Your task to perform on an android device: all mails in gmail Image 0: 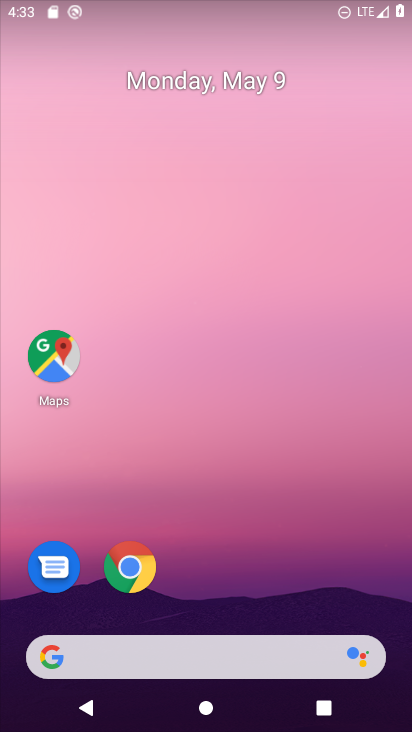
Step 0: drag from (219, 618) to (216, 161)
Your task to perform on an android device: all mails in gmail Image 1: 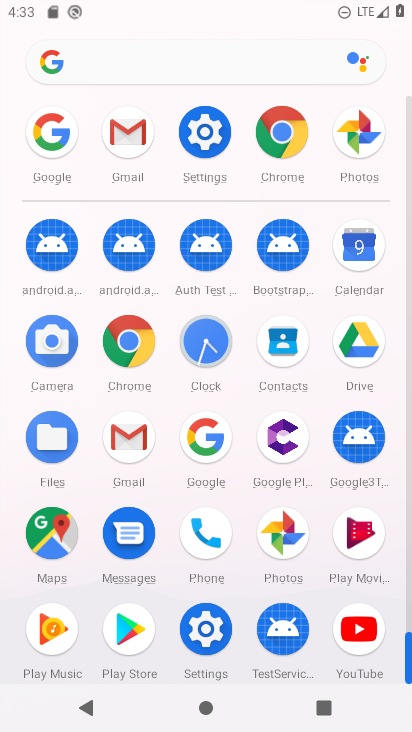
Step 1: click (124, 437)
Your task to perform on an android device: all mails in gmail Image 2: 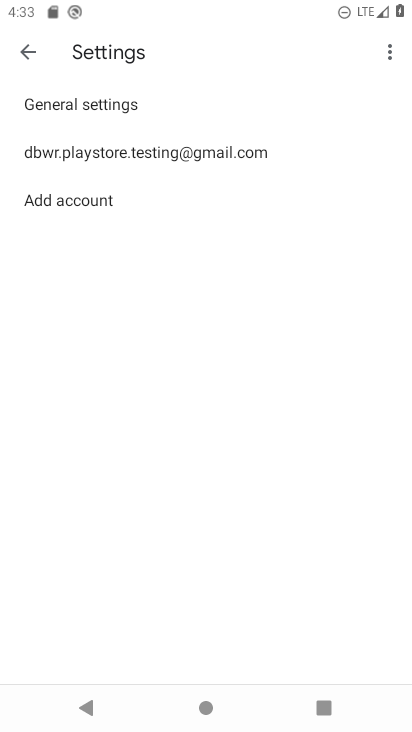
Step 2: click (25, 58)
Your task to perform on an android device: all mails in gmail Image 3: 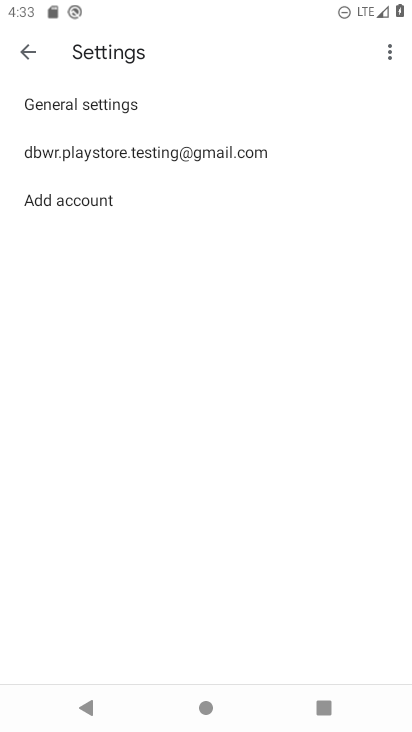
Step 3: click (35, 46)
Your task to perform on an android device: all mails in gmail Image 4: 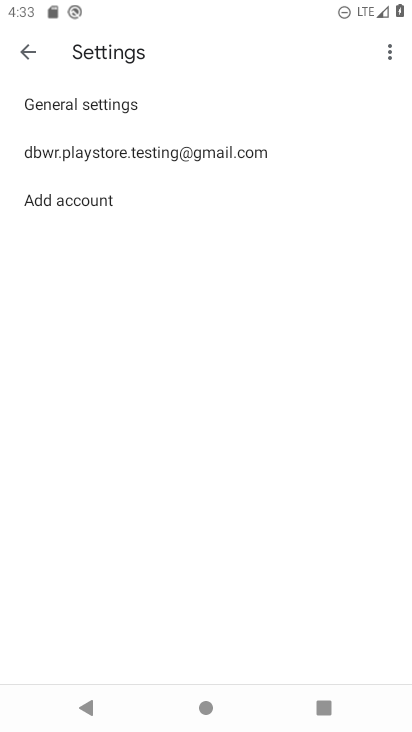
Step 4: click (32, 49)
Your task to perform on an android device: all mails in gmail Image 5: 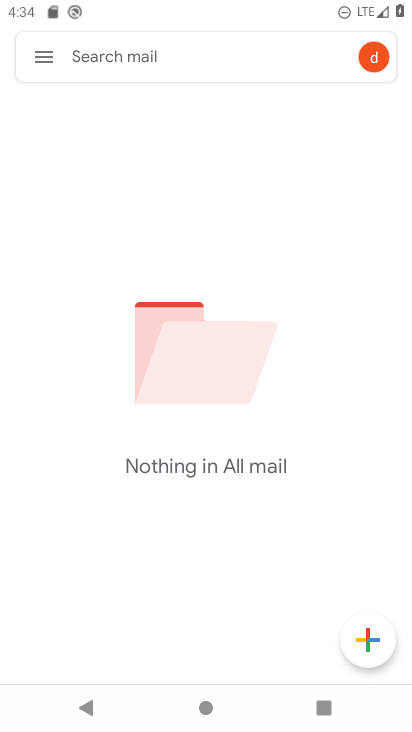
Step 5: task complete